Your task to perform on an android device: turn on wifi Image 0: 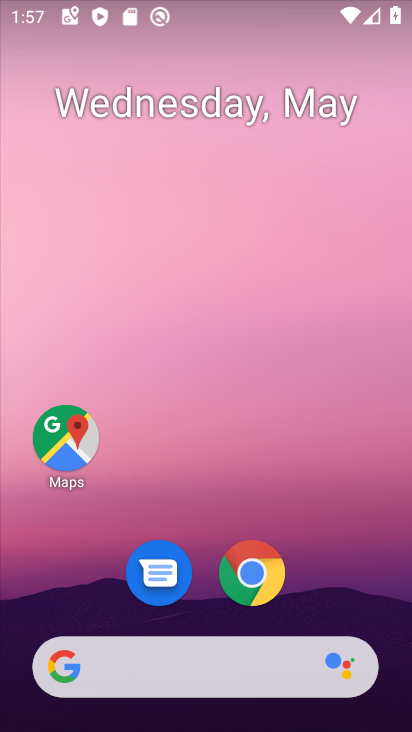
Step 0: drag from (319, 587) to (313, 2)
Your task to perform on an android device: turn on wifi Image 1: 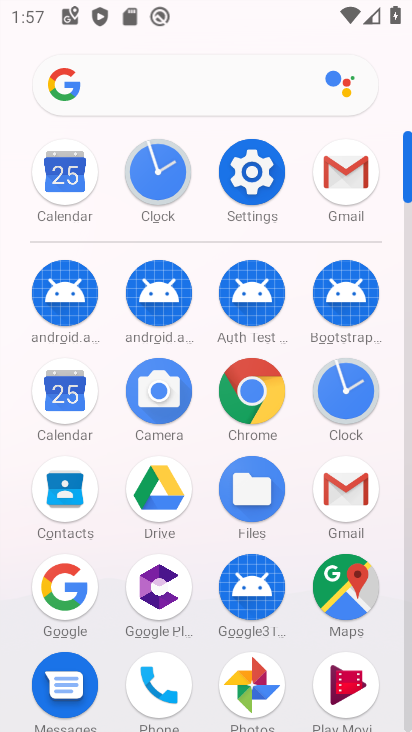
Step 1: click (250, 168)
Your task to perform on an android device: turn on wifi Image 2: 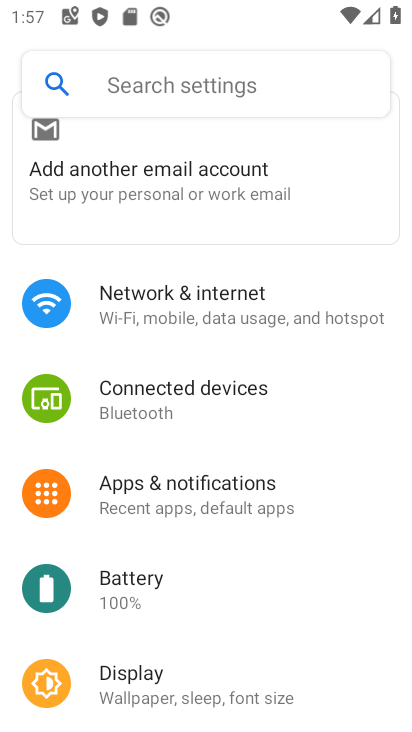
Step 2: click (174, 295)
Your task to perform on an android device: turn on wifi Image 3: 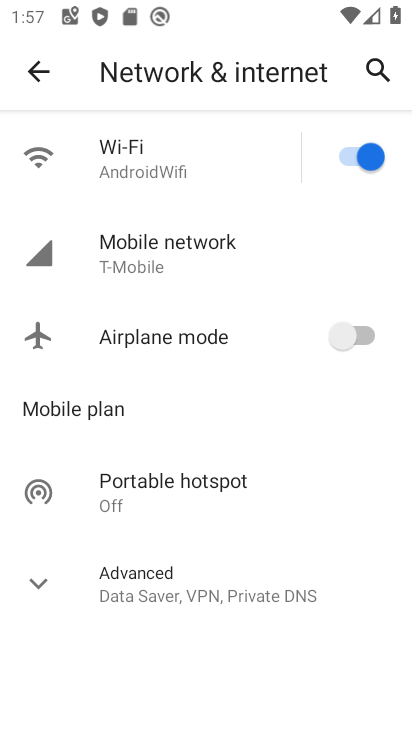
Step 3: task complete